Your task to perform on an android device: change keyboard looks Image 0: 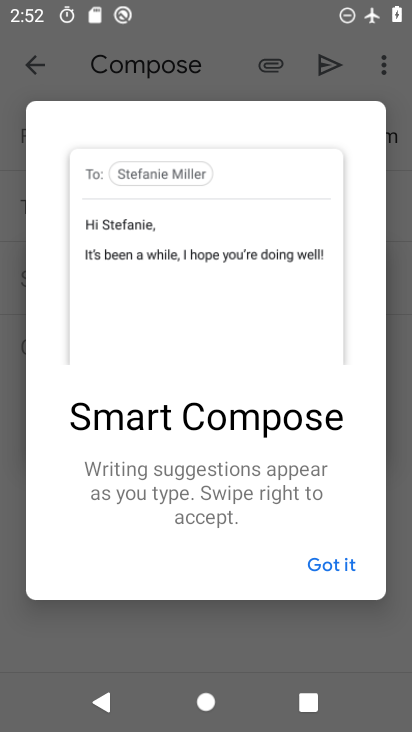
Step 0: press home button
Your task to perform on an android device: change keyboard looks Image 1: 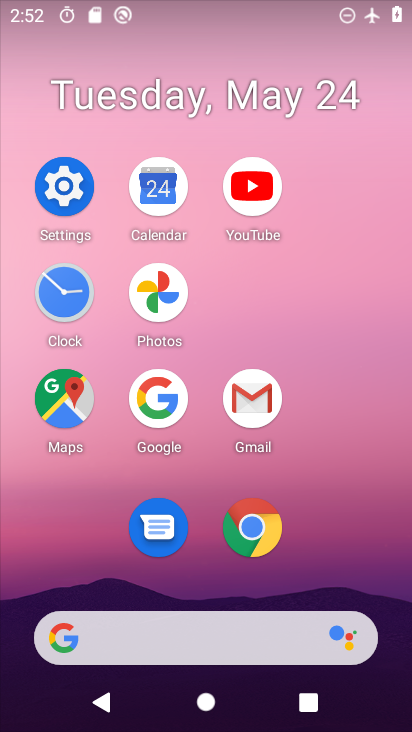
Step 1: click (94, 201)
Your task to perform on an android device: change keyboard looks Image 2: 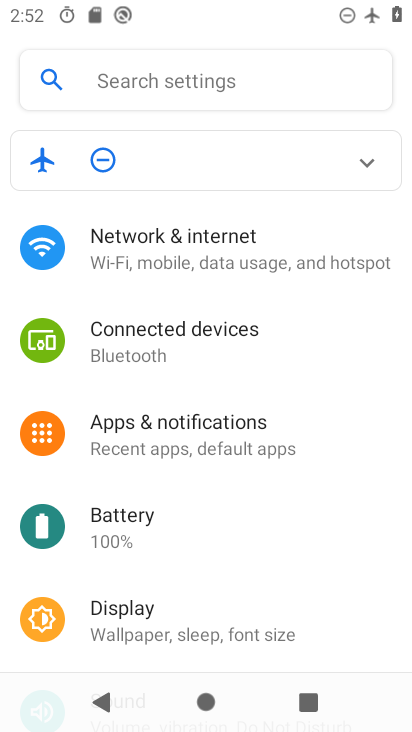
Step 2: drag from (282, 591) to (288, 191)
Your task to perform on an android device: change keyboard looks Image 3: 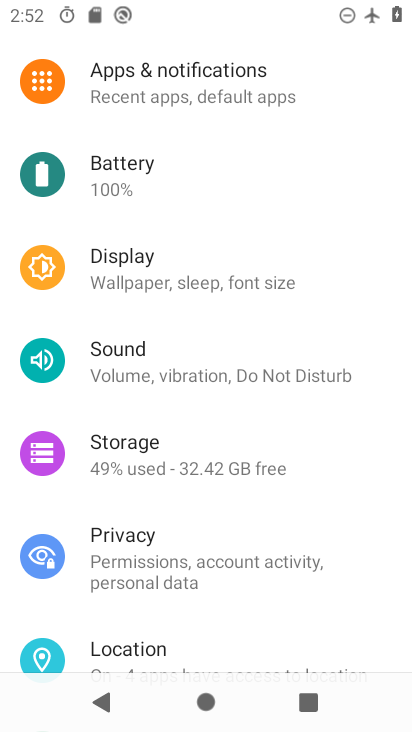
Step 3: drag from (259, 595) to (240, 151)
Your task to perform on an android device: change keyboard looks Image 4: 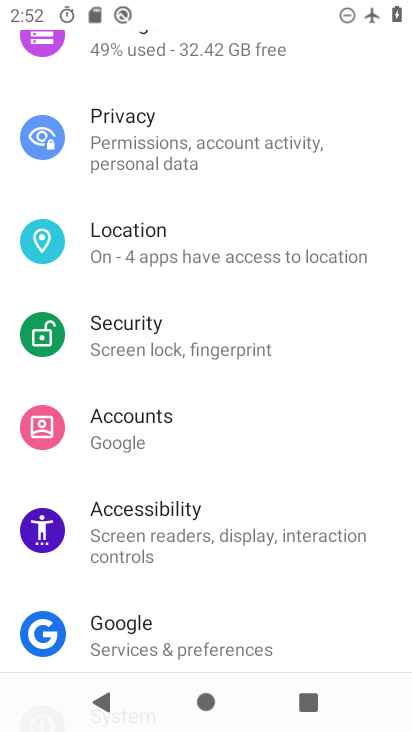
Step 4: drag from (242, 302) to (244, 242)
Your task to perform on an android device: change keyboard looks Image 5: 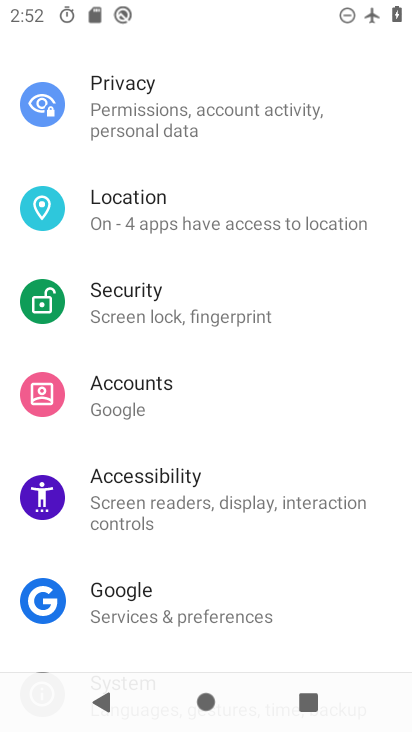
Step 5: drag from (274, 242) to (275, 382)
Your task to perform on an android device: change keyboard looks Image 6: 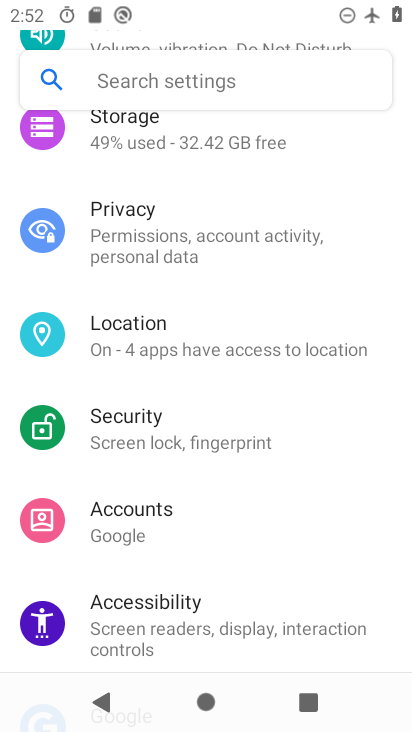
Step 6: drag from (284, 338) to (261, 496)
Your task to perform on an android device: change keyboard looks Image 7: 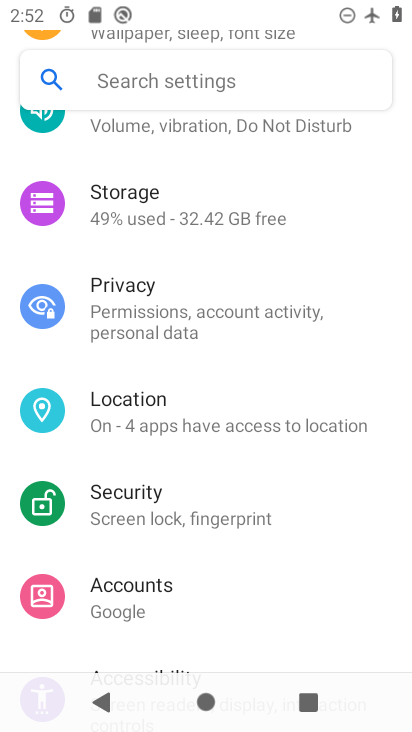
Step 7: drag from (204, 141) to (224, 488)
Your task to perform on an android device: change keyboard looks Image 8: 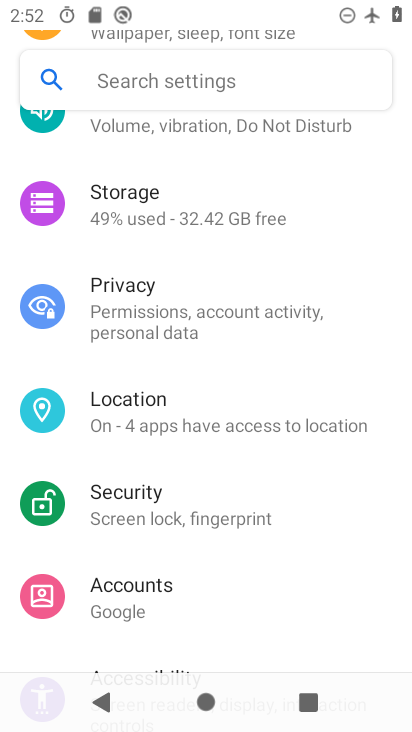
Step 8: drag from (307, 267) to (306, 527)
Your task to perform on an android device: change keyboard looks Image 9: 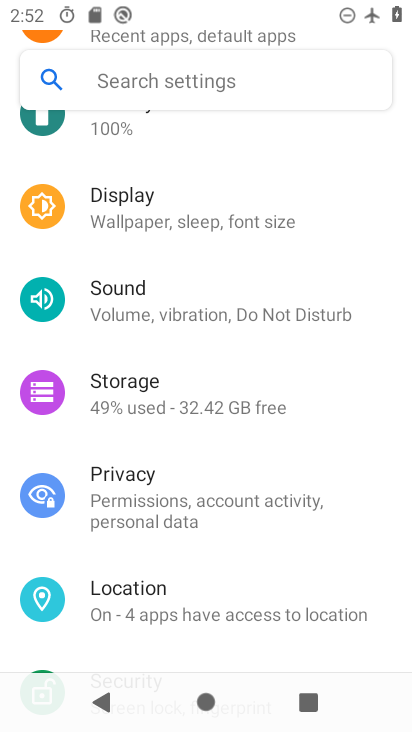
Step 9: drag from (300, 530) to (364, 166)
Your task to perform on an android device: change keyboard looks Image 10: 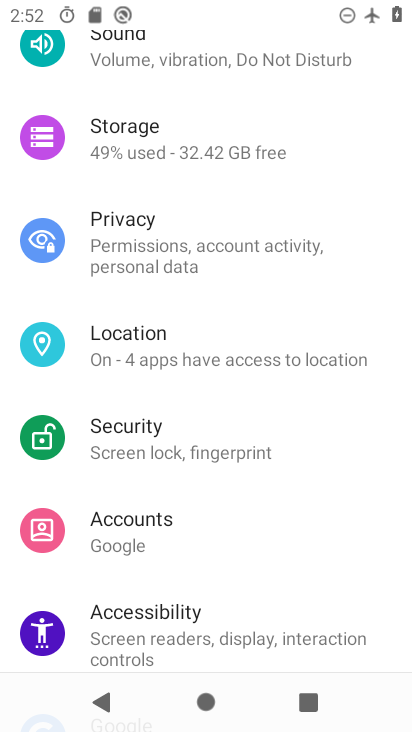
Step 10: drag from (254, 544) to (288, 59)
Your task to perform on an android device: change keyboard looks Image 11: 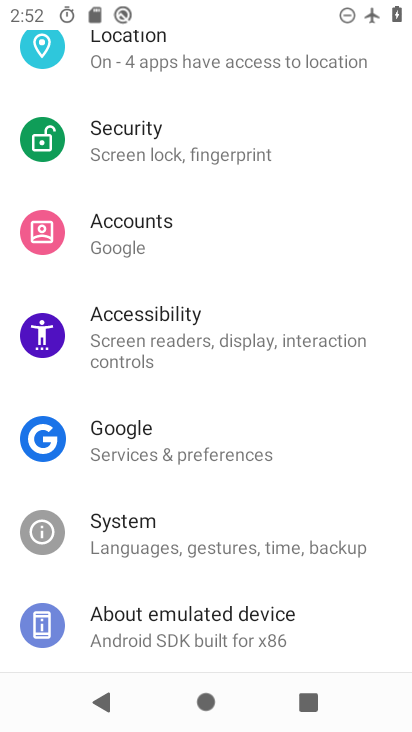
Step 11: click (214, 527)
Your task to perform on an android device: change keyboard looks Image 12: 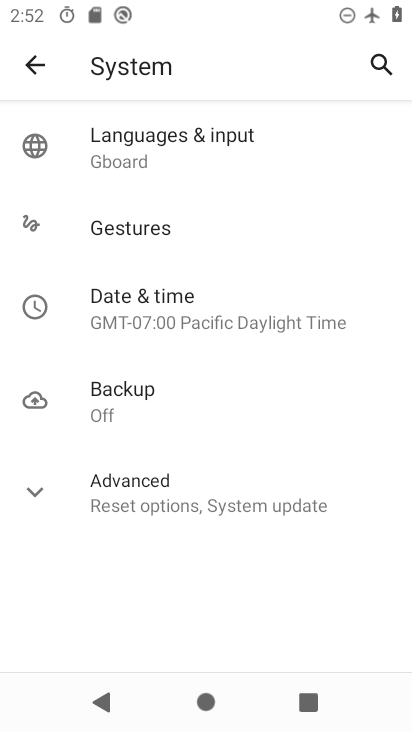
Step 12: click (140, 154)
Your task to perform on an android device: change keyboard looks Image 13: 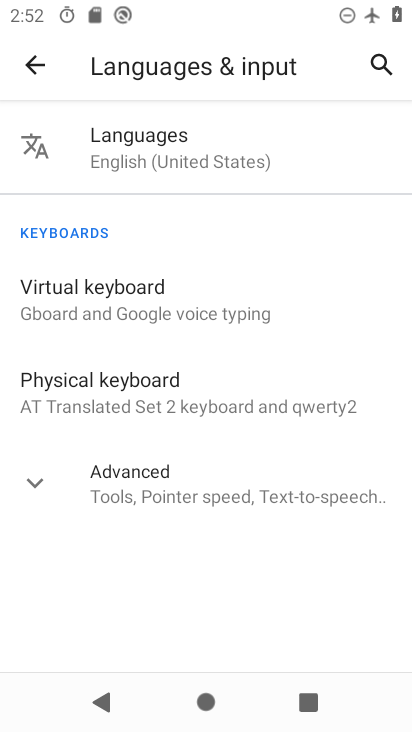
Step 13: click (143, 313)
Your task to perform on an android device: change keyboard looks Image 14: 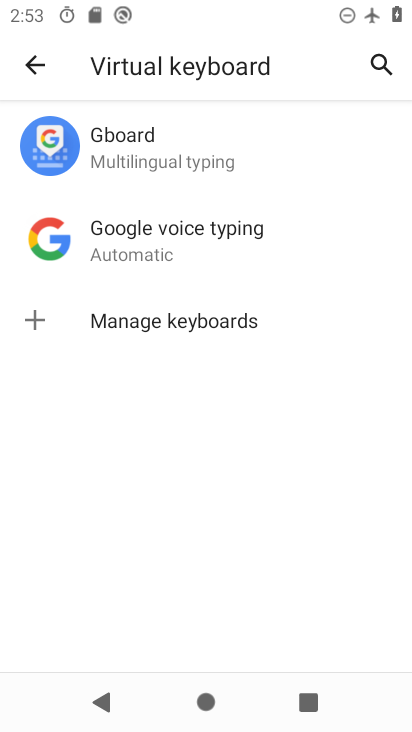
Step 14: click (154, 174)
Your task to perform on an android device: change keyboard looks Image 15: 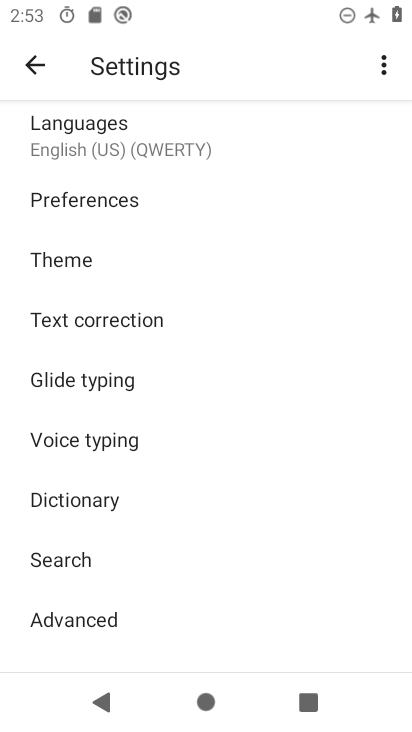
Step 15: click (88, 262)
Your task to perform on an android device: change keyboard looks Image 16: 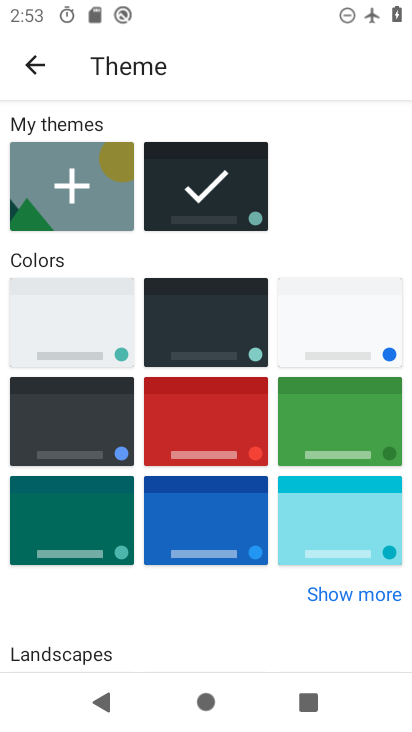
Step 16: click (251, 338)
Your task to perform on an android device: change keyboard looks Image 17: 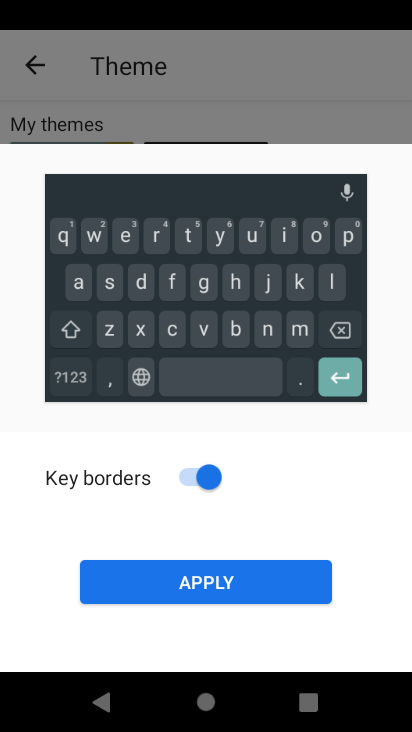
Step 17: click (237, 578)
Your task to perform on an android device: change keyboard looks Image 18: 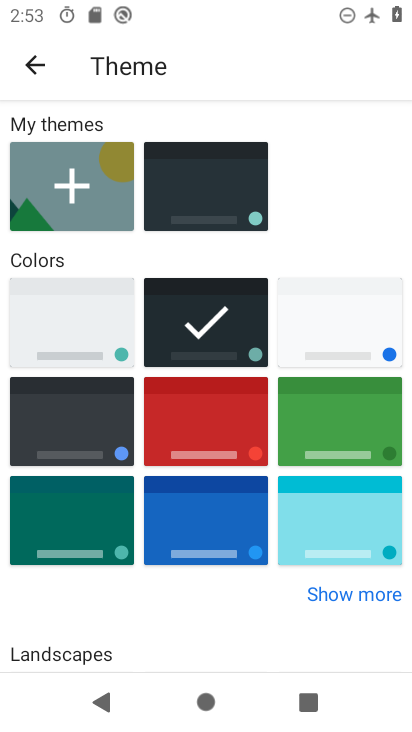
Step 18: task complete